Your task to perform on an android device: turn off notifications in google photos Image 0: 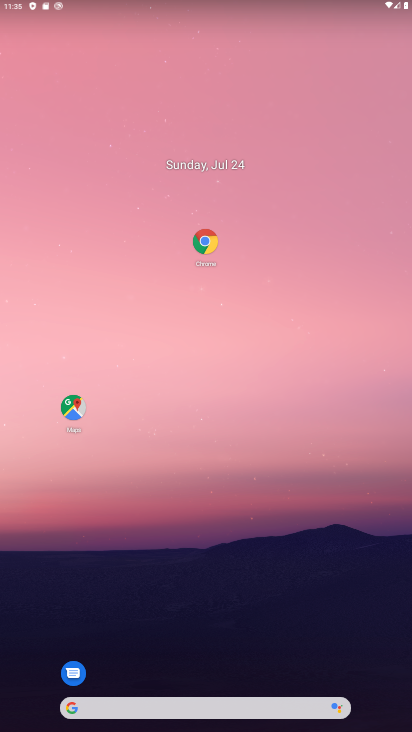
Step 0: click (48, 242)
Your task to perform on an android device: turn off notifications in google photos Image 1: 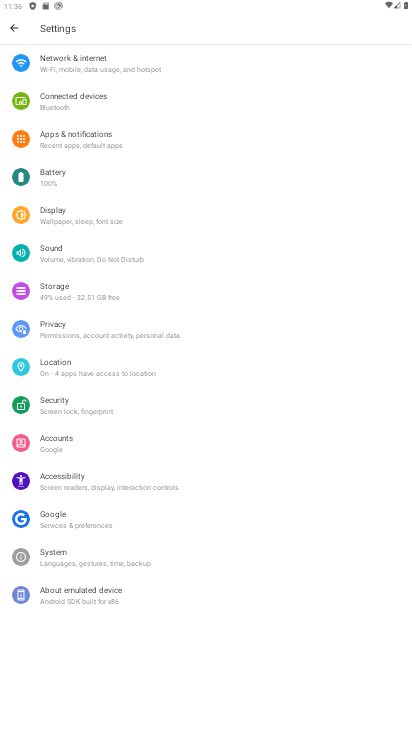
Step 1: press home button
Your task to perform on an android device: turn off notifications in google photos Image 2: 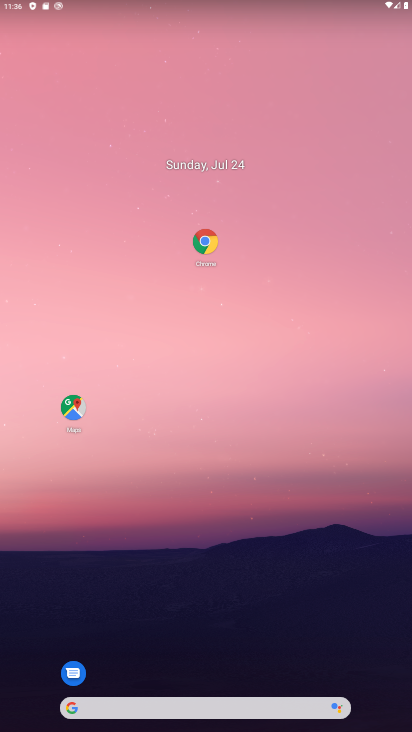
Step 2: drag from (268, 704) to (410, 532)
Your task to perform on an android device: turn off notifications in google photos Image 3: 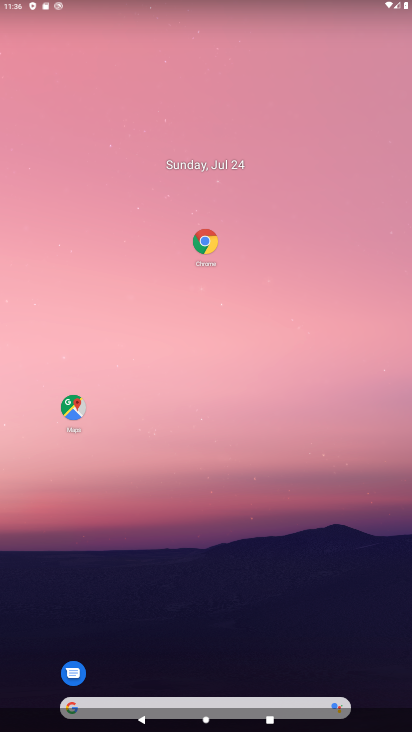
Step 3: click (280, 412)
Your task to perform on an android device: turn off notifications in google photos Image 4: 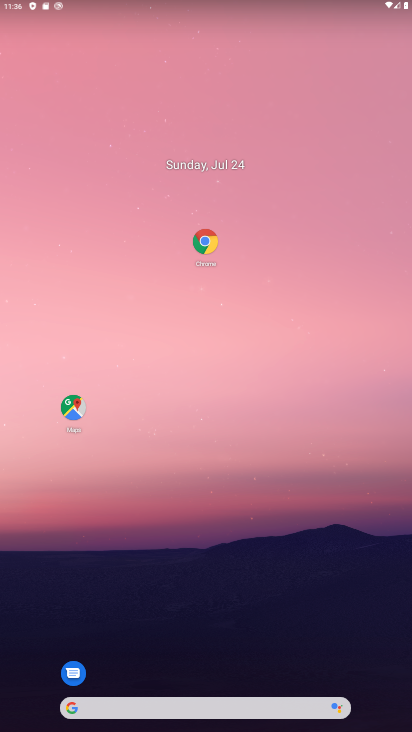
Step 4: drag from (225, 635) to (211, 48)
Your task to perform on an android device: turn off notifications in google photos Image 5: 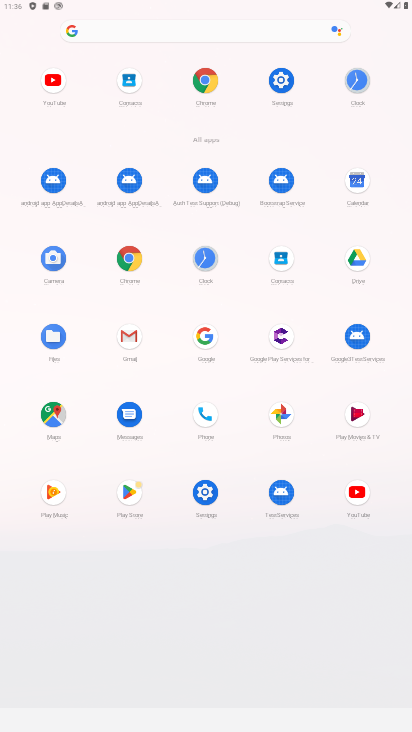
Step 5: click (278, 416)
Your task to perform on an android device: turn off notifications in google photos Image 6: 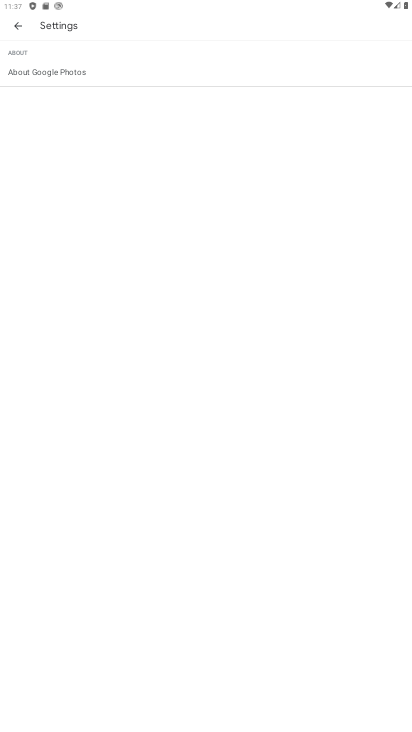
Step 6: press back button
Your task to perform on an android device: turn off notifications in google photos Image 7: 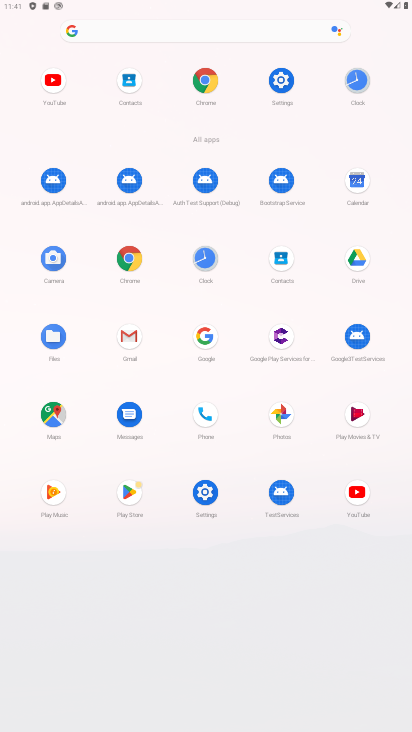
Step 7: click (284, 410)
Your task to perform on an android device: turn off notifications in google photos Image 8: 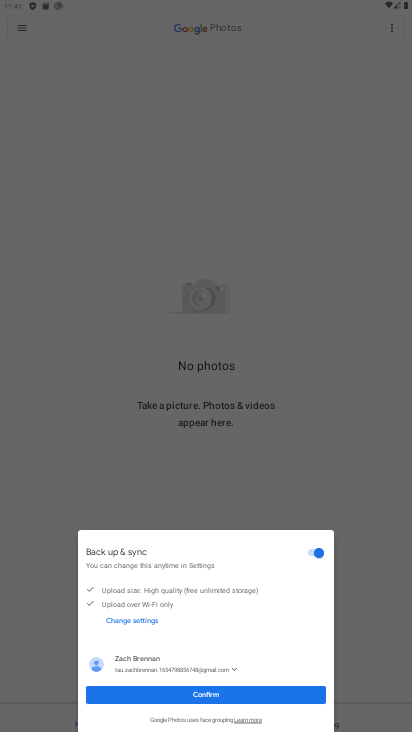
Step 8: click (232, 698)
Your task to perform on an android device: turn off notifications in google photos Image 9: 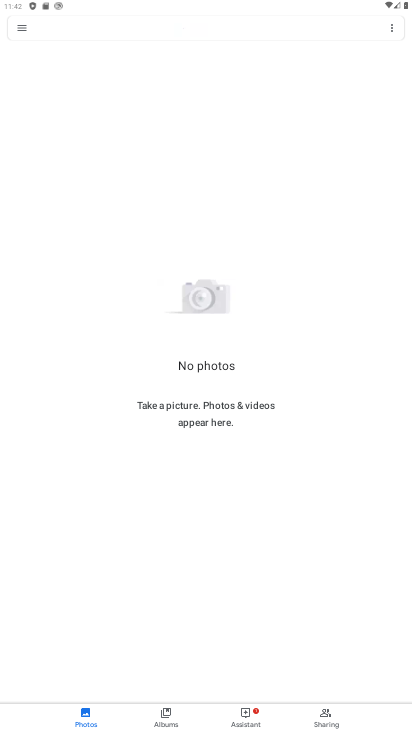
Step 9: click (13, 31)
Your task to perform on an android device: turn off notifications in google photos Image 10: 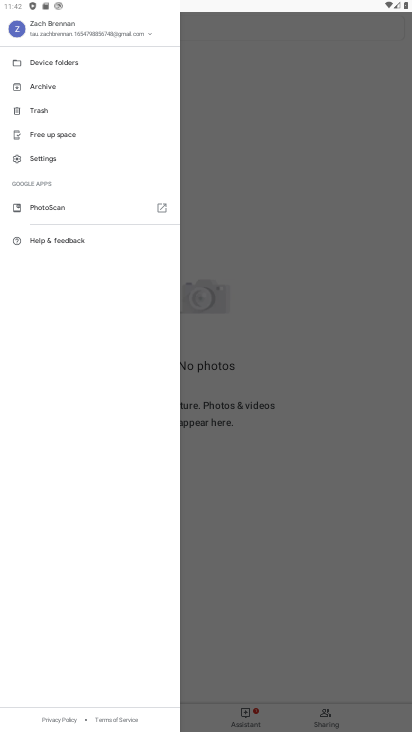
Step 10: click (59, 155)
Your task to perform on an android device: turn off notifications in google photos Image 11: 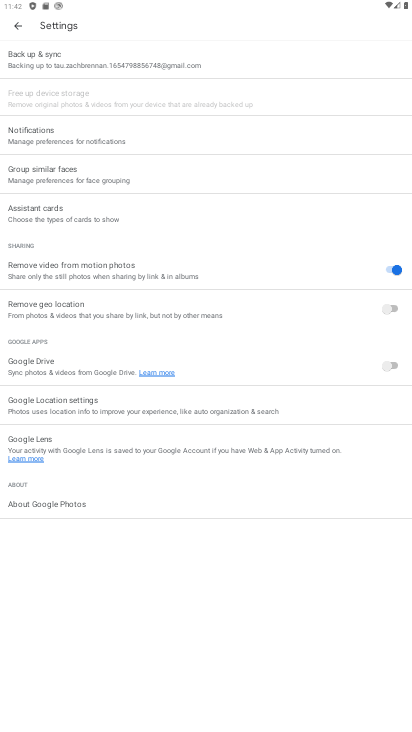
Step 11: click (68, 131)
Your task to perform on an android device: turn off notifications in google photos Image 12: 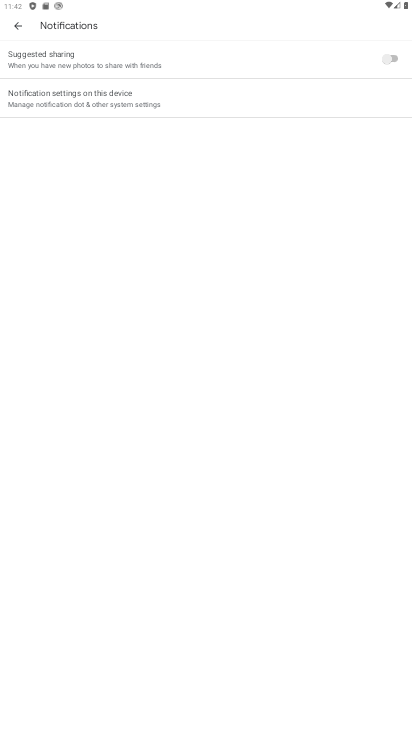
Step 12: click (157, 94)
Your task to perform on an android device: turn off notifications in google photos Image 13: 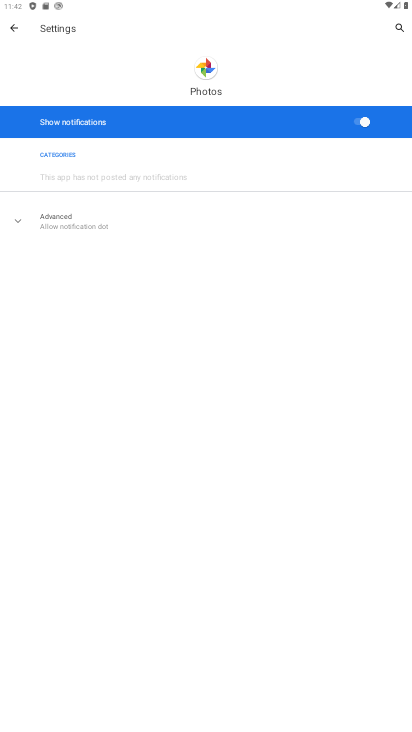
Step 13: click (362, 123)
Your task to perform on an android device: turn off notifications in google photos Image 14: 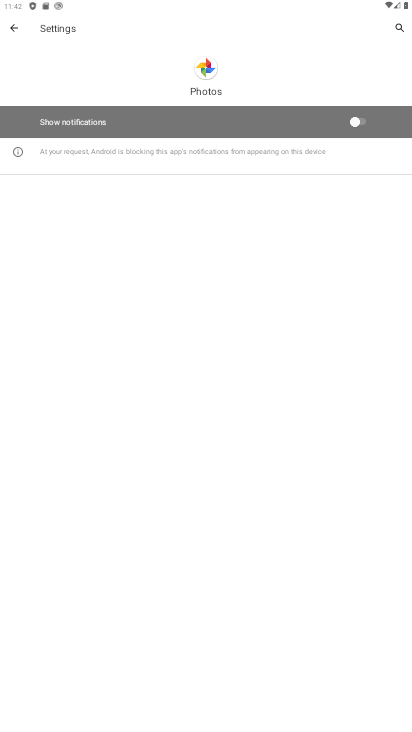
Step 14: task complete